Your task to perform on an android device: Open Android settings Image 0: 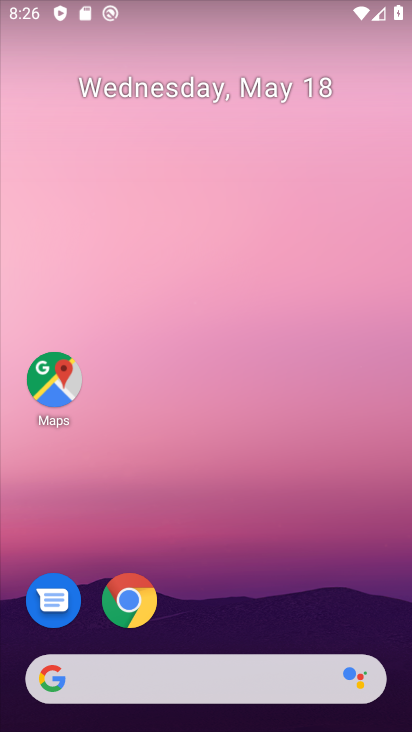
Step 0: drag from (11, 607) to (261, 205)
Your task to perform on an android device: Open Android settings Image 1: 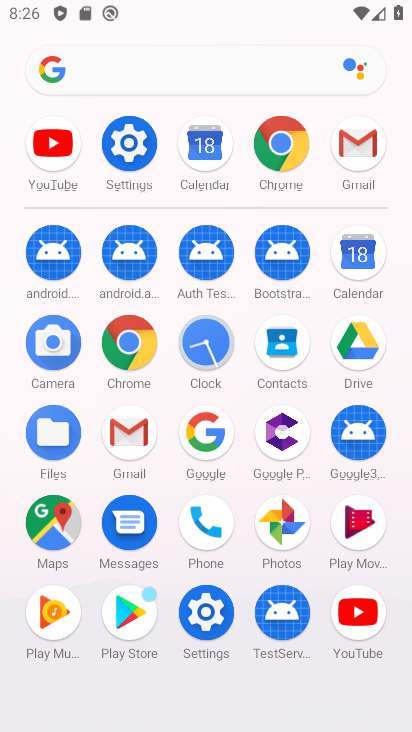
Step 1: click (134, 142)
Your task to perform on an android device: Open Android settings Image 2: 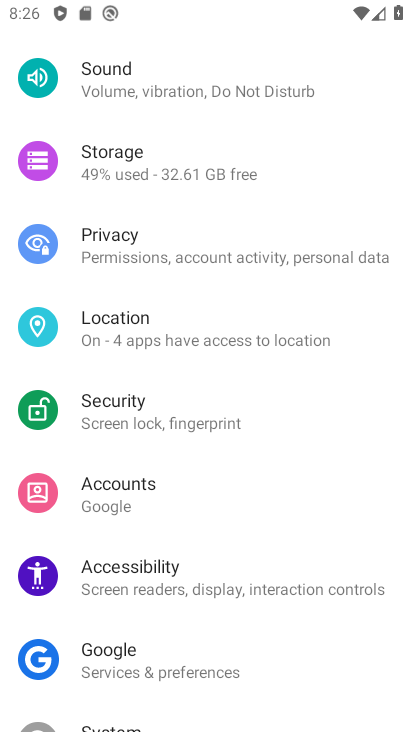
Step 2: drag from (106, 659) to (342, 184)
Your task to perform on an android device: Open Android settings Image 3: 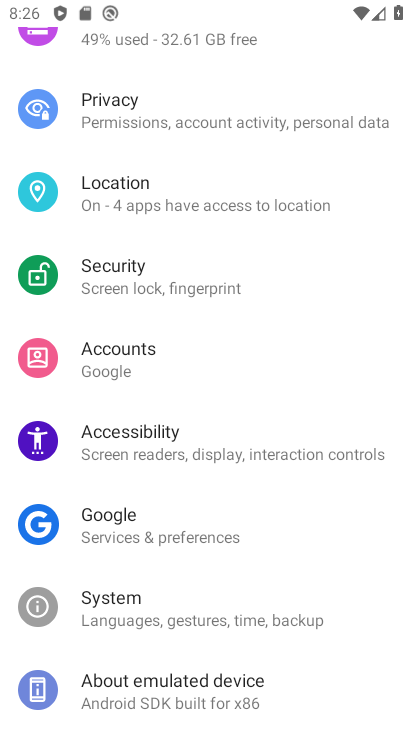
Step 3: click (130, 611)
Your task to perform on an android device: Open Android settings Image 4: 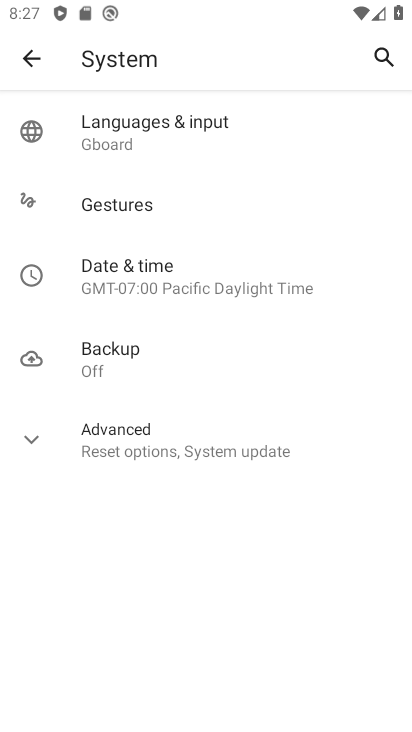
Step 4: task complete